Your task to perform on an android device: When is my next appointment? Image 0: 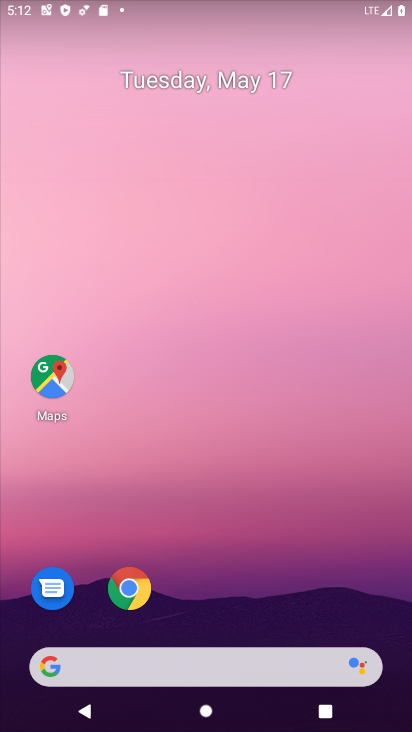
Step 0: drag from (266, 610) to (186, 70)
Your task to perform on an android device: When is my next appointment? Image 1: 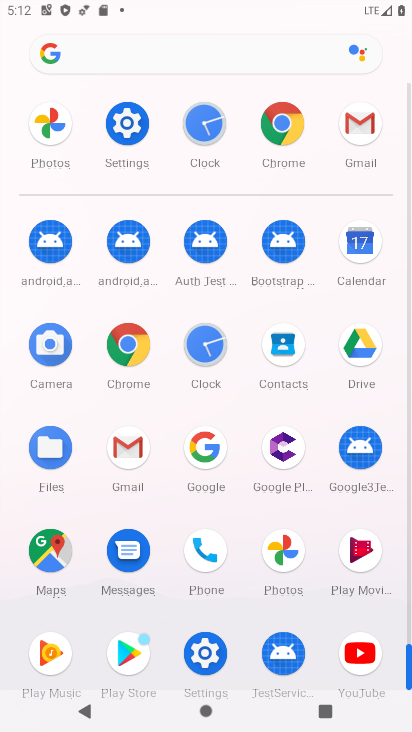
Step 1: click (358, 241)
Your task to perform on an android device: When is my next appointment? Image 2: 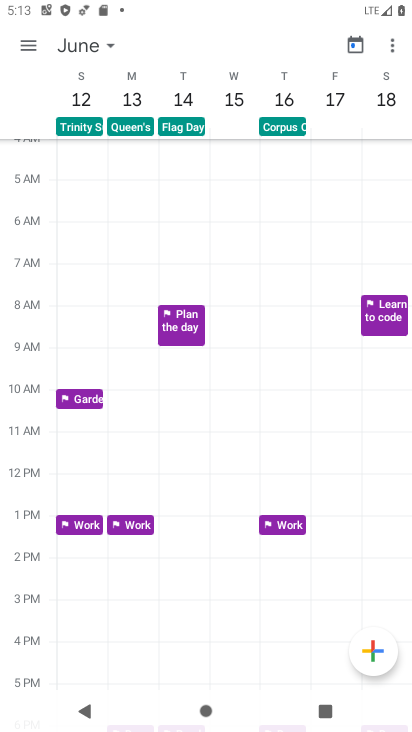
Step 2: click (355, 44)
Your task to perform on an android device: When is my next appointment? Image 3: 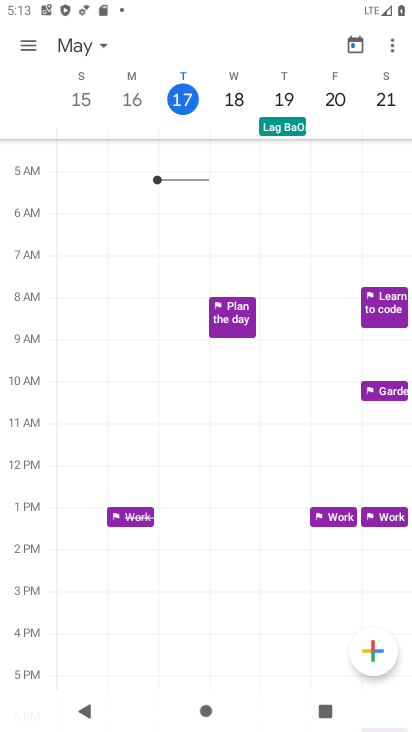
Step 3: click (104, 43)
Your task to perform on an android device: When is my next appointment? Image 4: 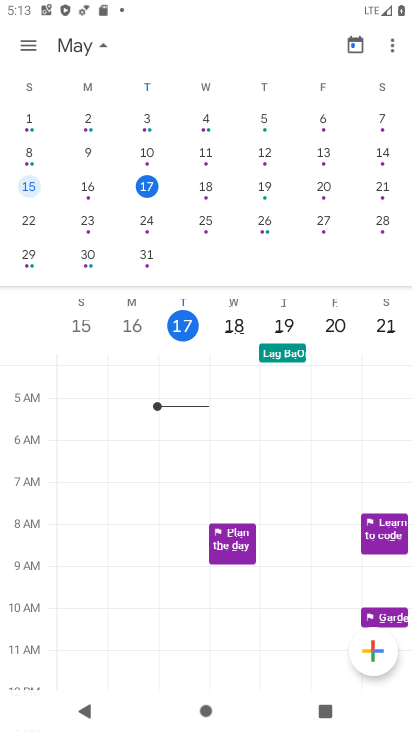
Step 4: click (210, 180)
Your task to perform on an android device: When is my next appointment? Image 5: 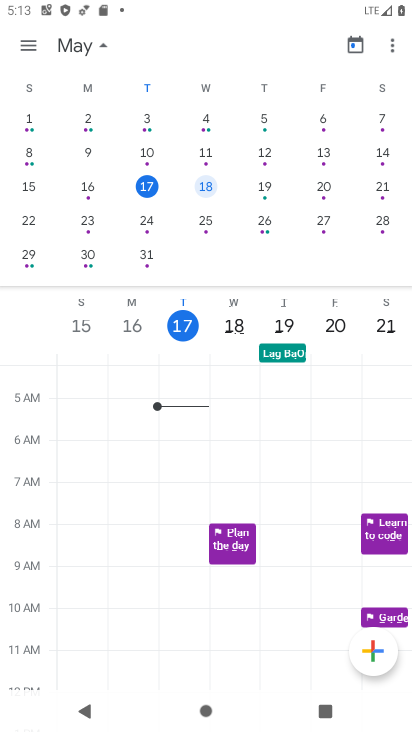
Step 5: click (25, 36)
Your task to perform on an android device: When is my next appointment? Image 6: 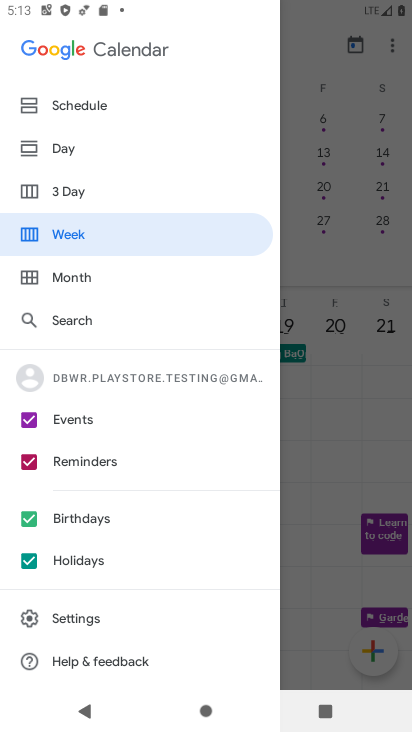
Step 6: click (79, 239)
Your task to perform on an android device: When is my next appointment? Image 7: 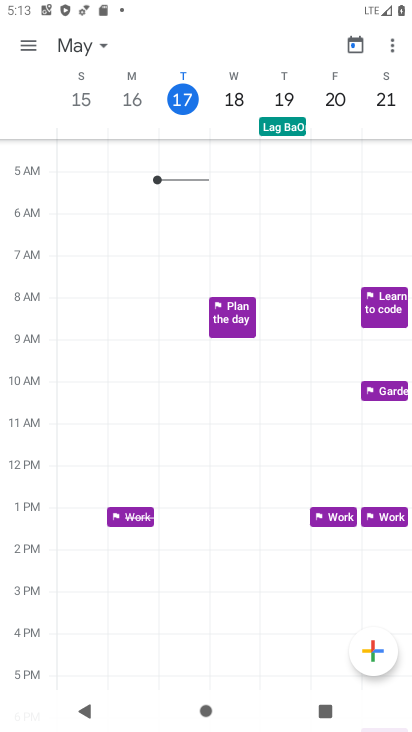
Step 7: task complete